Your task to perform on an android device: turn off notifications in google photos Image 0: 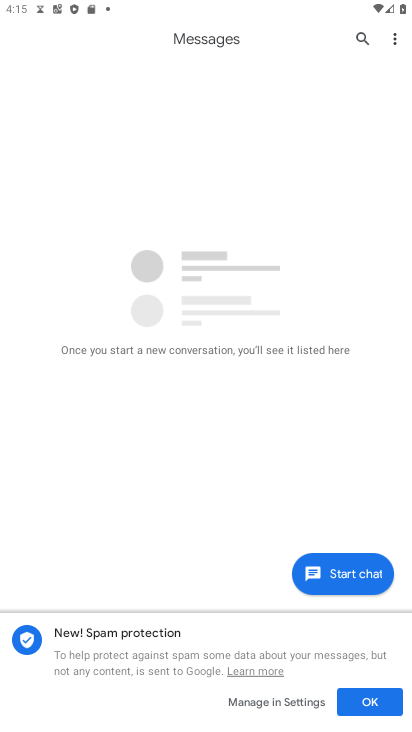
Step 0: press home button
Your task to perform on an android device: turn off notifications in google photos Image 1: 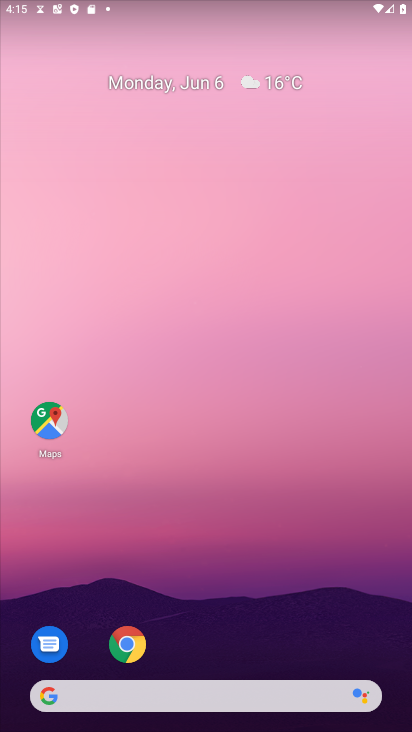
Step 1: drag from (115, 729) to (114, 93)
Your task to perform on an android device: turn off notifications in google photos Image 2: 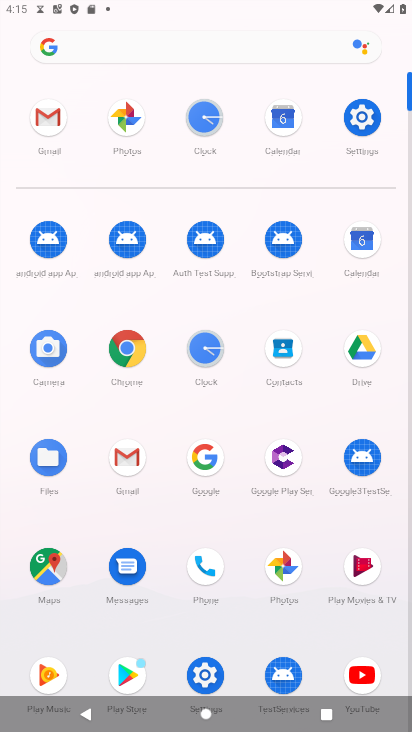
Step 2: click (271, 577)
Your task to perform on an android device: turn off notifications in google photos Image 3: 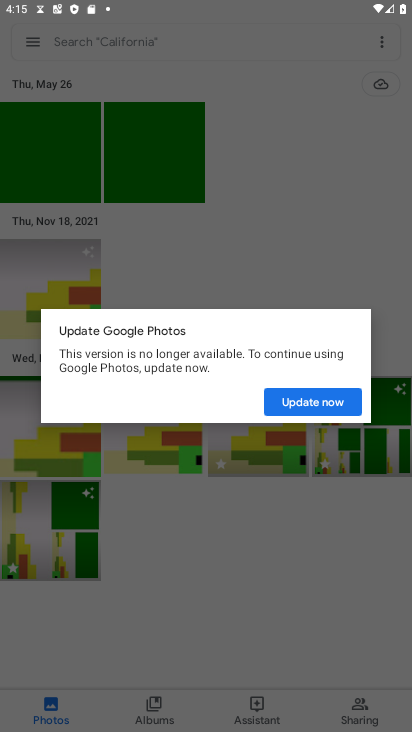
Step 3: click (301, 408)
Your task to perform on an android device: turn off notifications in google photos Image 4: 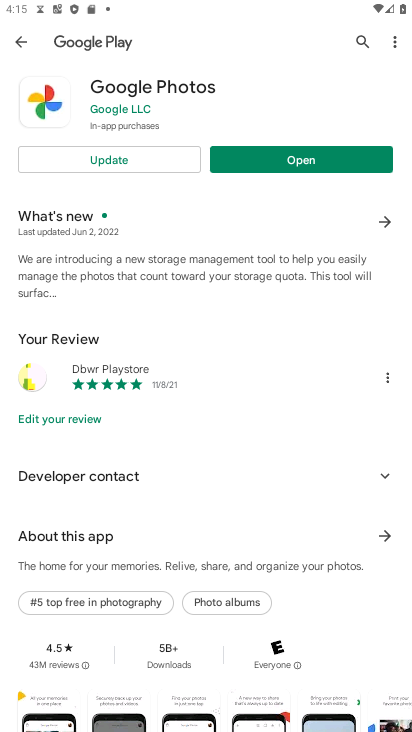
Step 4: click (145, 159)
Your task to perform on an android device: turn off notifications in google photos Image 5: 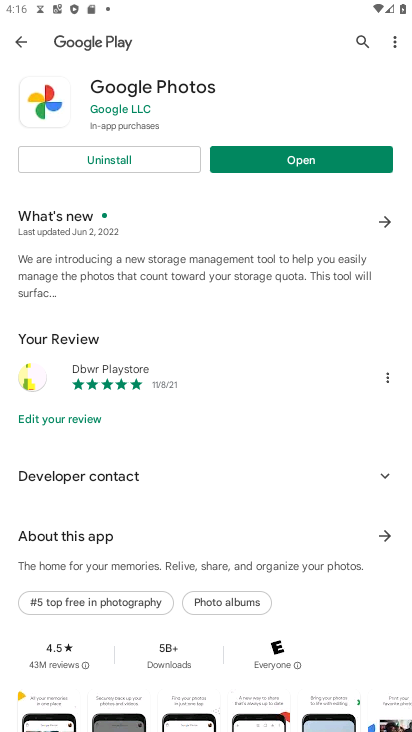
Step 5: click (297, 164)
Your task to perform on an android device: turn off notifications in google photos Image 6: 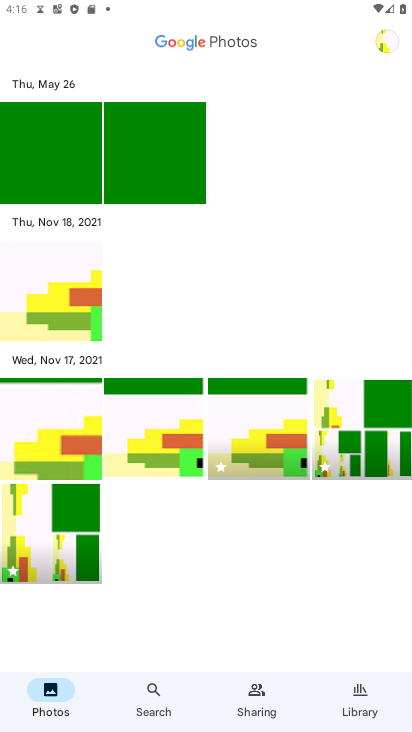
Step 6: click (378, 43)
Your task to perform on an android device: turn off notifications in google photos Image 7: 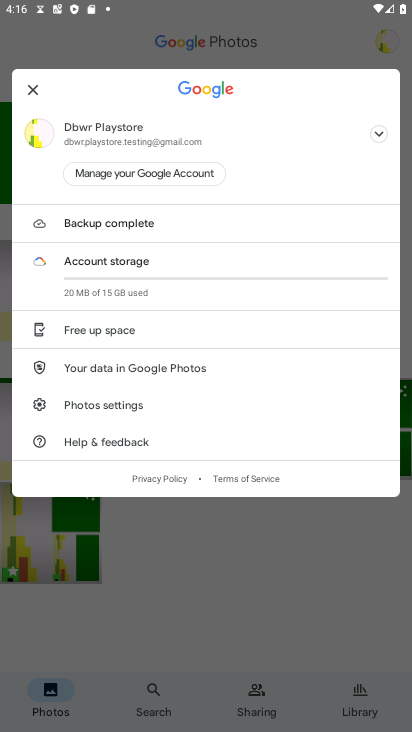
Step 7: click (101, 411)
Your task to perform on an android device: turn off notifications in google photos Image 8: 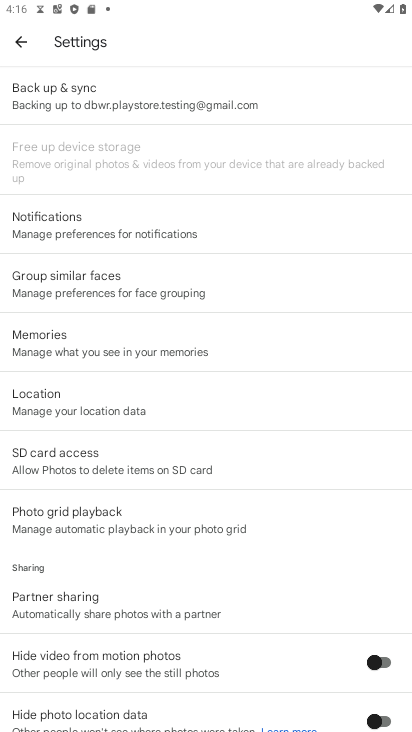
Step 8: click (111, 228)
Your task to perform on an android device: turn off notifications in google photos Image 9: 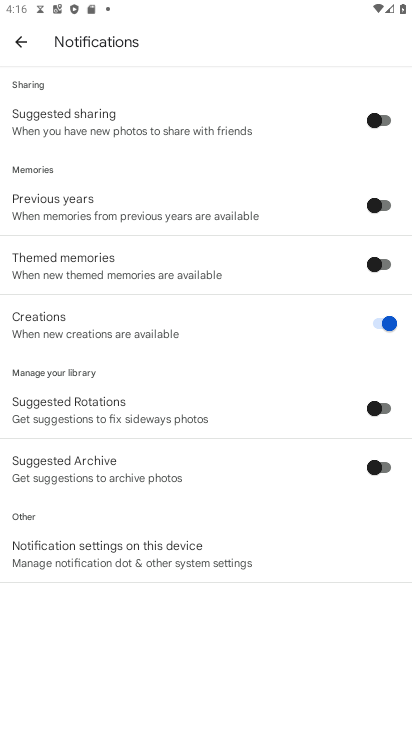
Step 9: click (90, 564)
Your task to perform on an android device: turn off notifications in google photos Image 10: 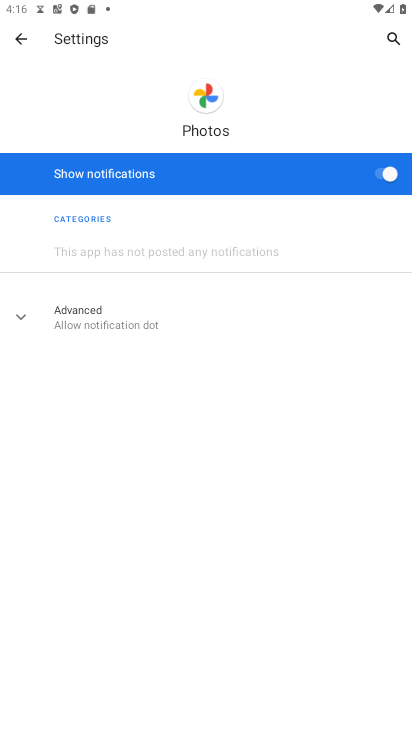
Step 10: click (391, 174)
Your task to perform on an android device: turn off notifications in google photos Image 11: 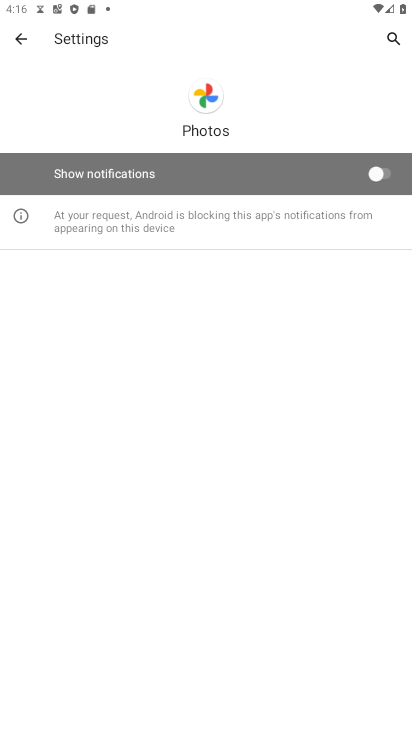
Step 11: task complete